Your task to perform on an android device: install app "Spotify" Image 0: 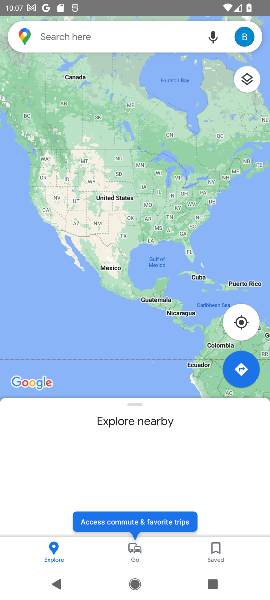
Step 0: press home button
Your task to perform on an android device: install app "Spotify" Image 1: 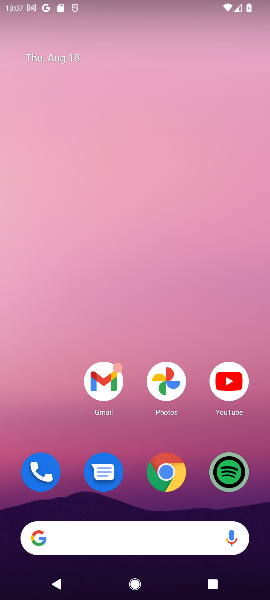
Step 1: drag from (157, 306) to (181, 3)
Your task to perform on an android device: install app "Spotify" Image 2: 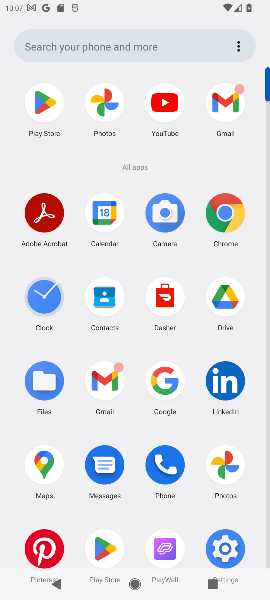
Step 2: click (100, 537)
Your task to perform on an android device: install app "Spotify" Image 3: 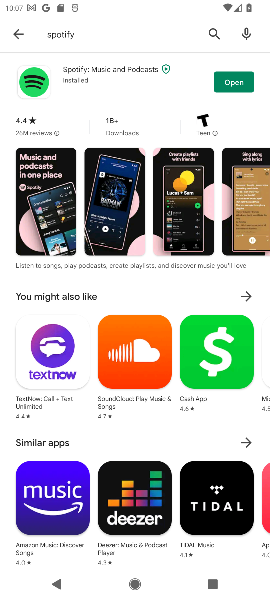
Step 3: click (217, 35)
Your task to perform on an android device: install app "Spotify" Image 4: 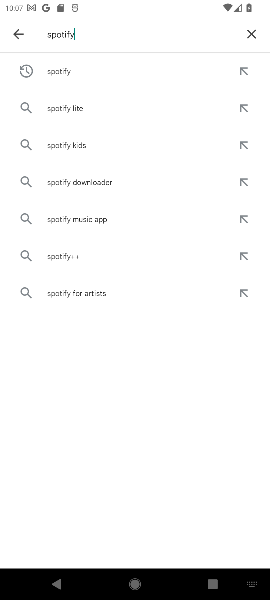
Step 4: click (253, 34)
Your task to perform on an android device: install app "Spotify" Image 5: 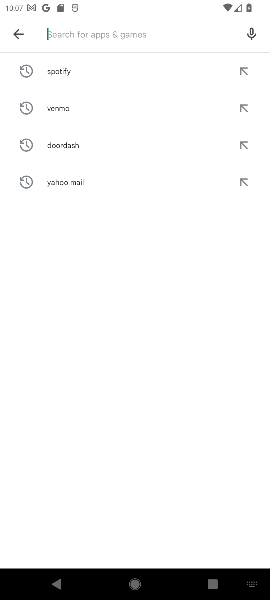
Step 5: type "spotify"
Your task to perform on an android device: install app "Spotify" Image 6: 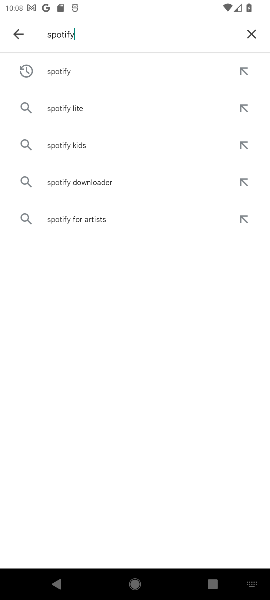
Step 6: click (100, 66)
Your task to perform on an android device: install app "Spotify" Image 7: 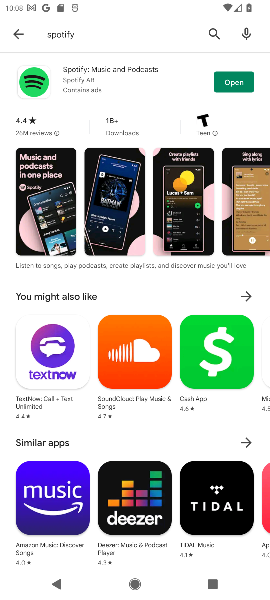
Step 7: task complete